Your task to perform on an android device: turn on wifi Image 0: 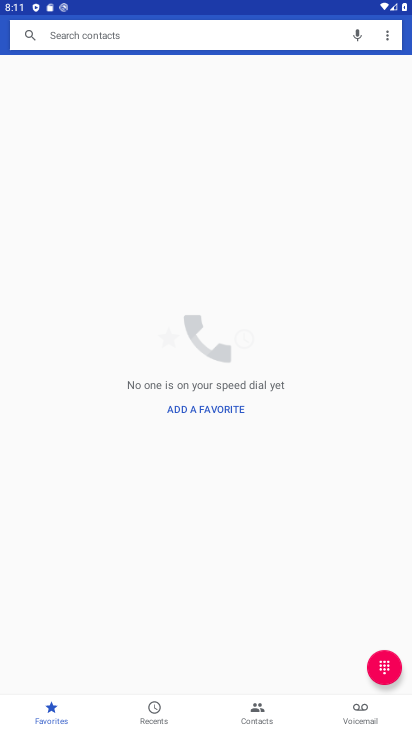
Step 0: press home button
Your task to perform on an android device: turn on wifi Image 1: 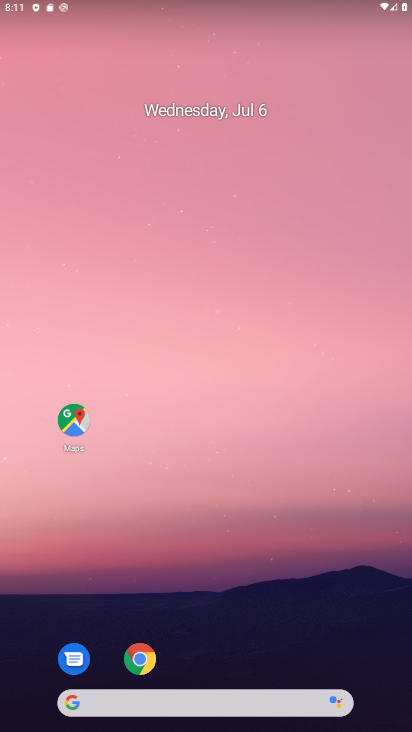
Step 1: drag from (203, 631) to (256, 39)
Your task to perform on an android device: turn on wifi Image 2: 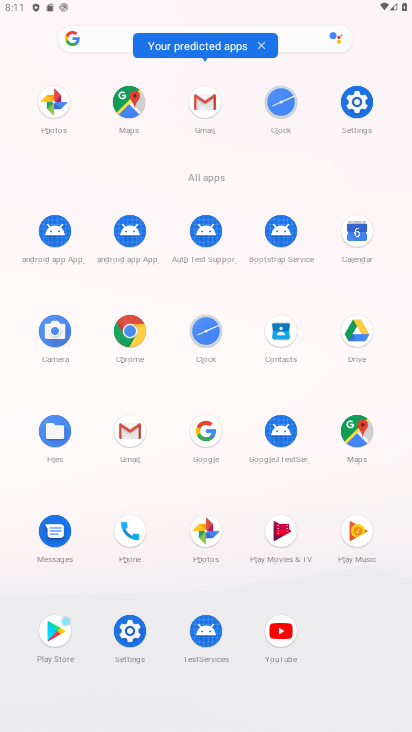
Step 2: click (357, 107)
Your task to perform on an android device: turn on wifi Image 3: 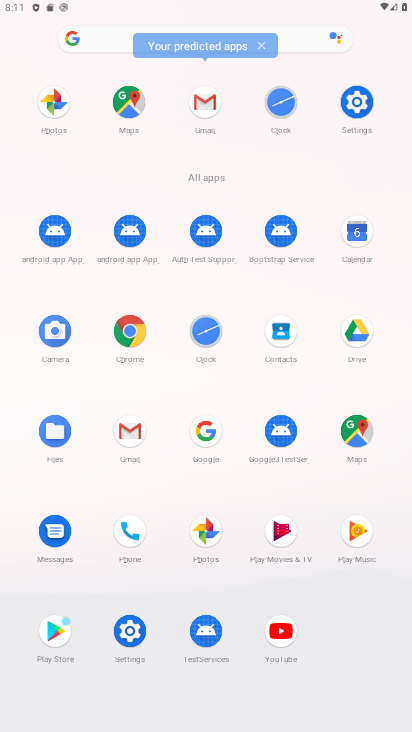
Step 3: click (357, 107)
Your task to perform on an android device: turn on wifi Image 4: 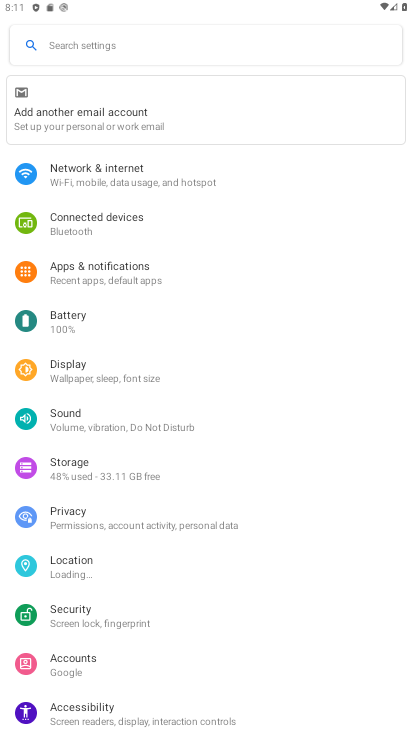
Step 4: click (121, 174)
Your task to perform on an android device: turn on wifi Image 5: 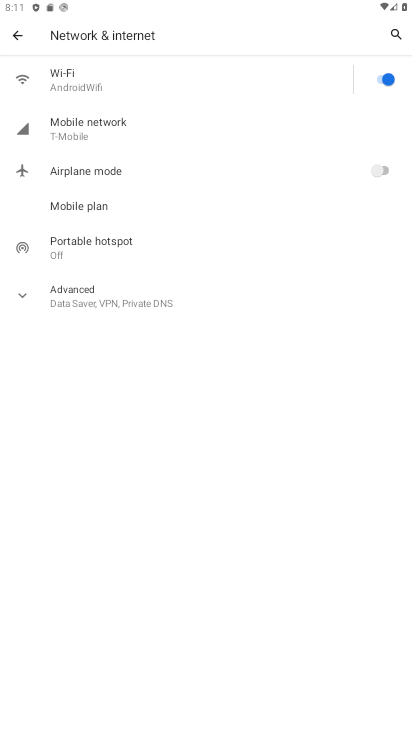
Step 5: click (192, 82)
Your task to perform on an android device: turn on wifi Image 6: 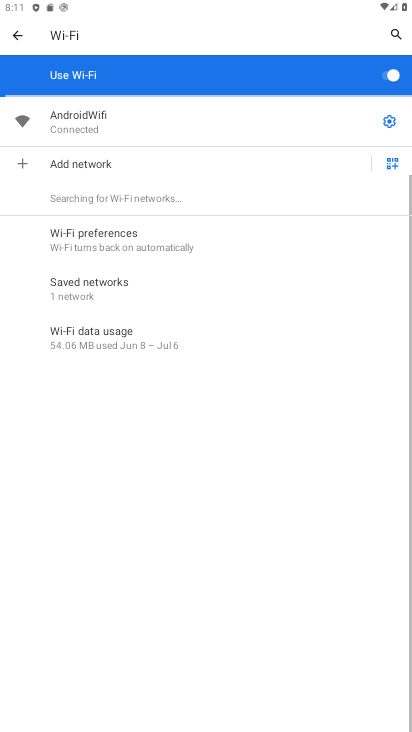
Step 6: task complete